Your task to perform on an android device: Go to calendar. Show me events next week Image 0: 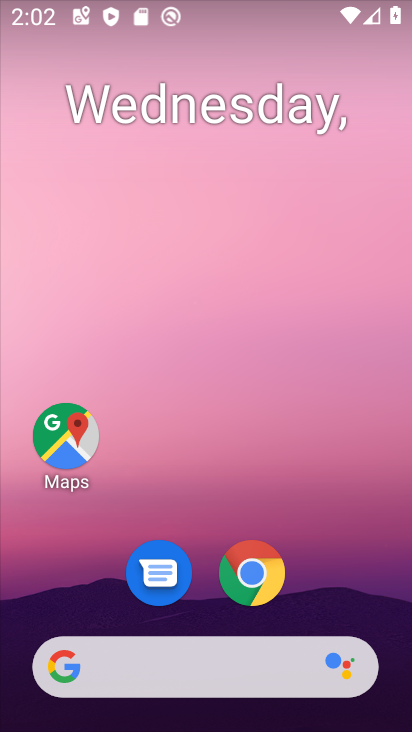
Step 0: drag from (212, 556) to (196, 160)
Your task to perform on an android device: Go to calendar. Show me events next week Image 1: 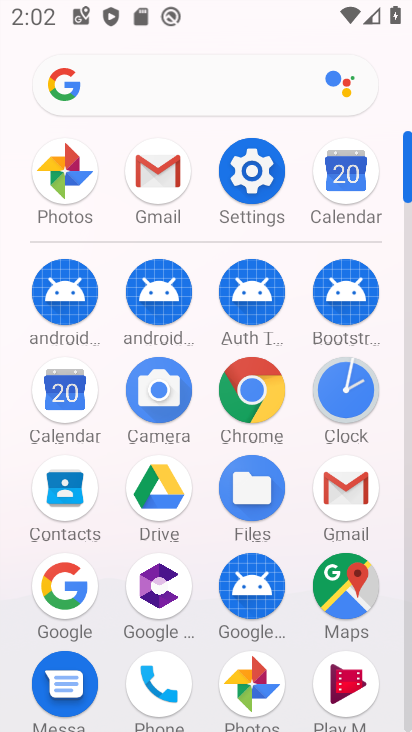
Step 1: click (66, 394)
Your task to perform on an android device: Go to calendar. Show me events next week Image 2: 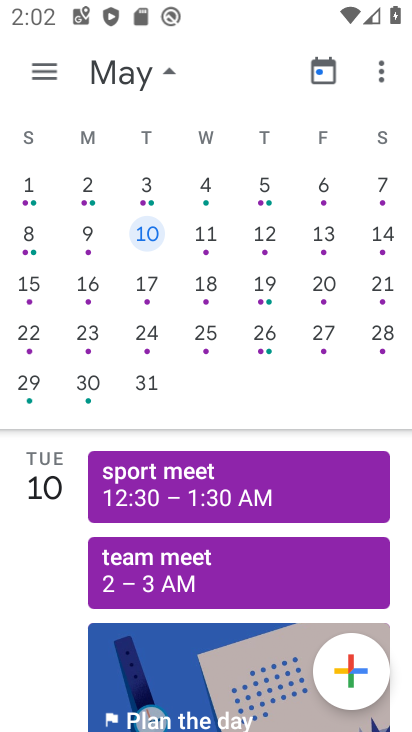
Step 2: drag from (22, 410) to (90, 405)
Your task to perform on an android device: Go to calendar. Show me events next week Image 3: 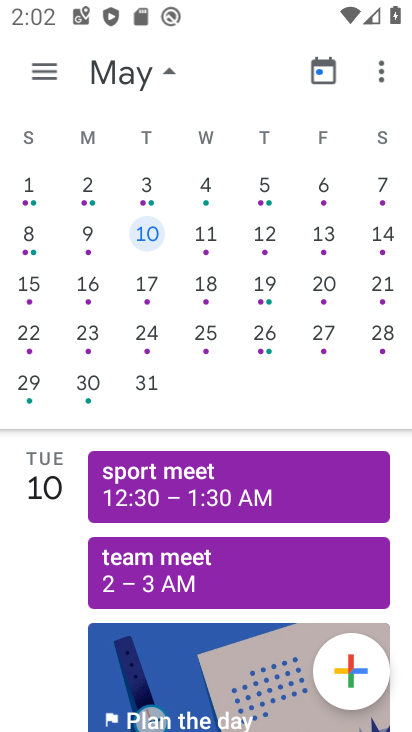
Step 3: drag from (44, 410) to (403, 413)
Your task to perform on an android device: Go to calendar. Show me events next week Image 4: 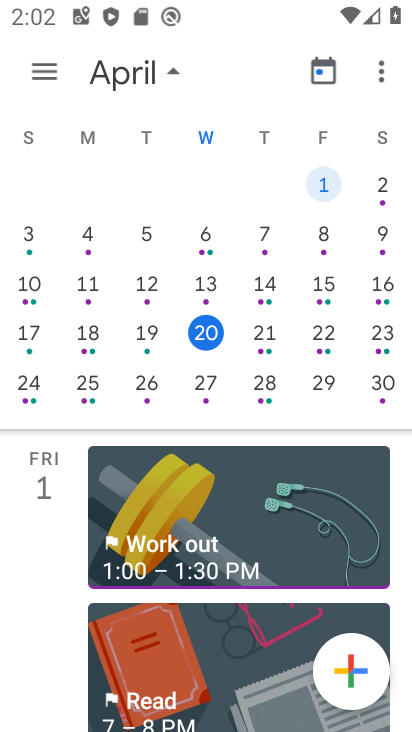
Step 4: click (260, 383)
Your task to perform on an android device: Go to calendar. Show me events next week Image 5: 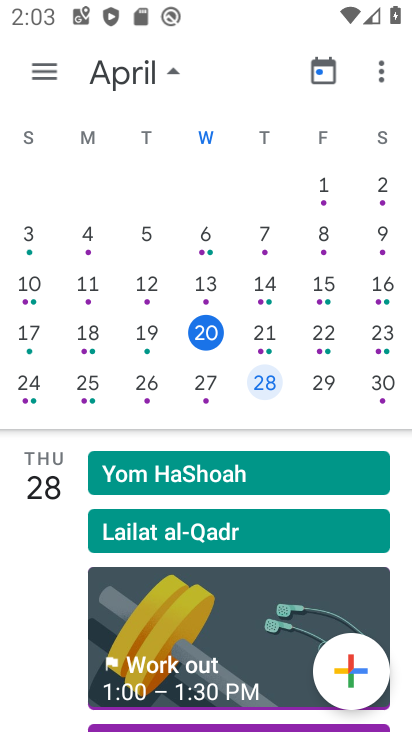
Step 5: task complete